Your task to perform on an android device: Open a new incognito tab in Chrome Image 0: 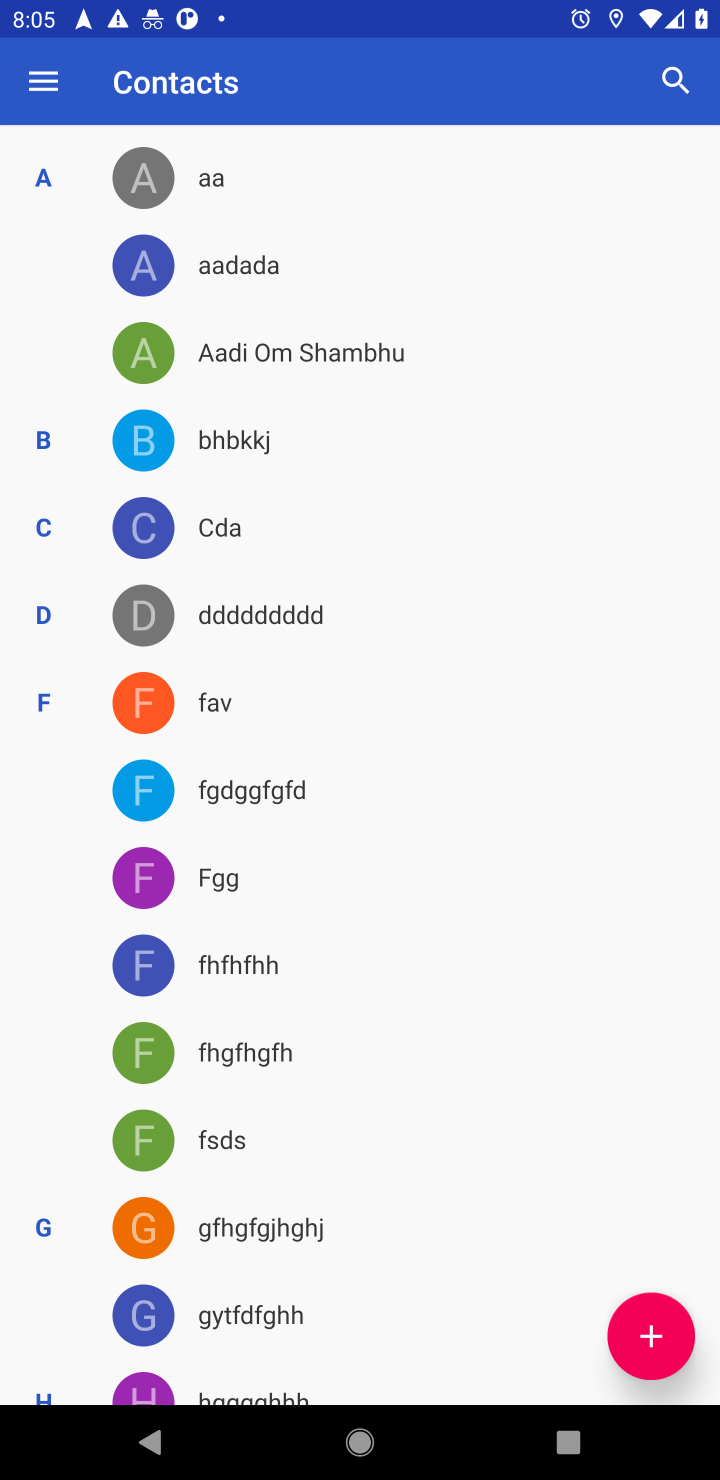
Step 0: press home button
Your task to perform on an android device: Open a new incognito tab in Chrome Image 1: 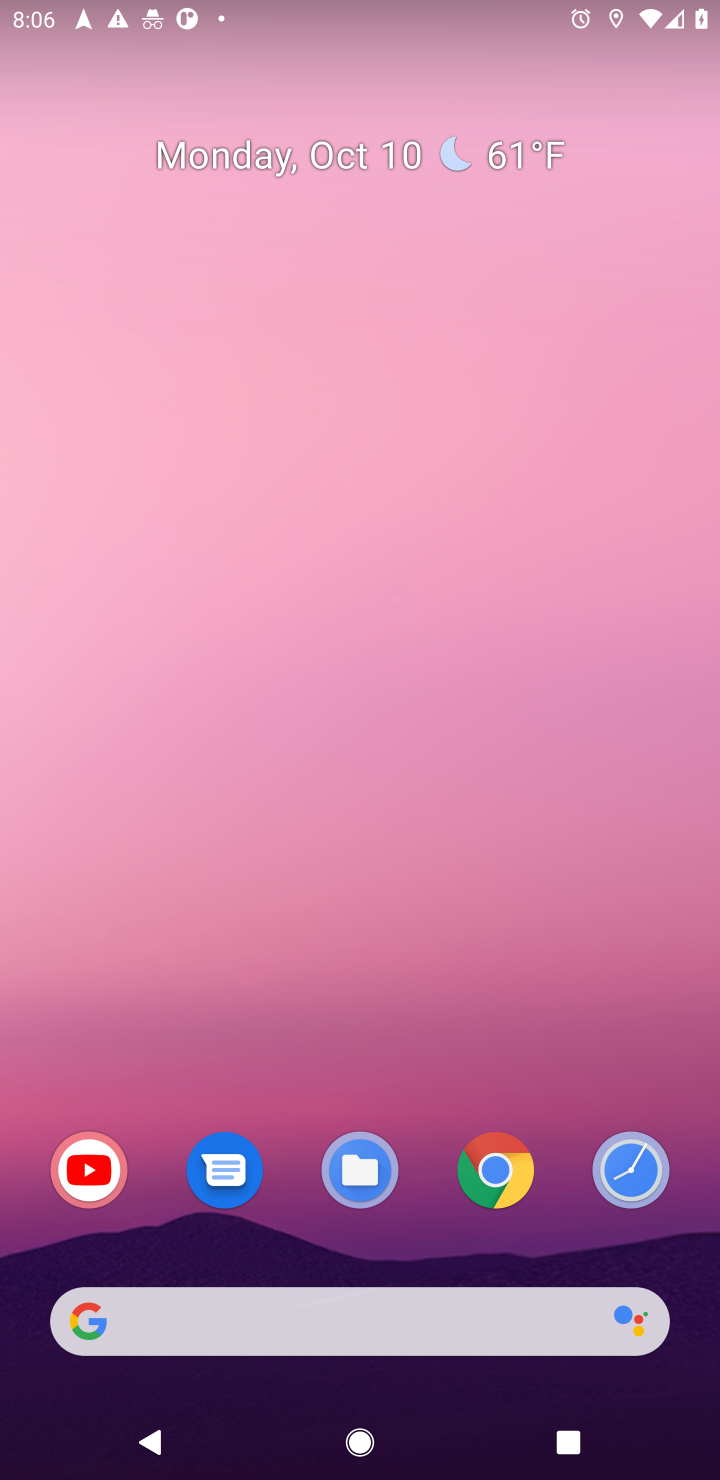
Step 1: click (484, 1174)
Your task to perform on an android device: Open a new incognito tab in Chrome Image 2: 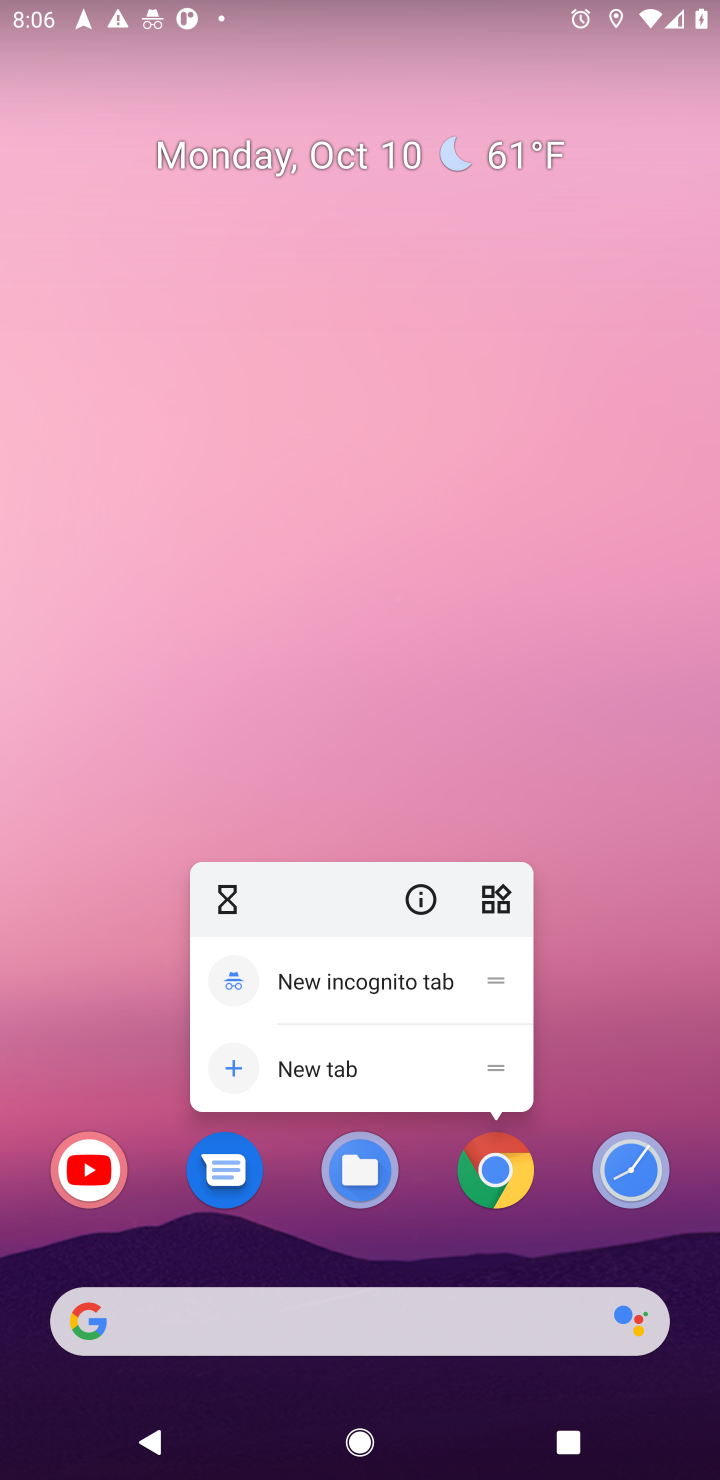
Step 2: click (526, 1170)
Your task to perform on an android device: Open a new incognito tab in Chrome Image 3: 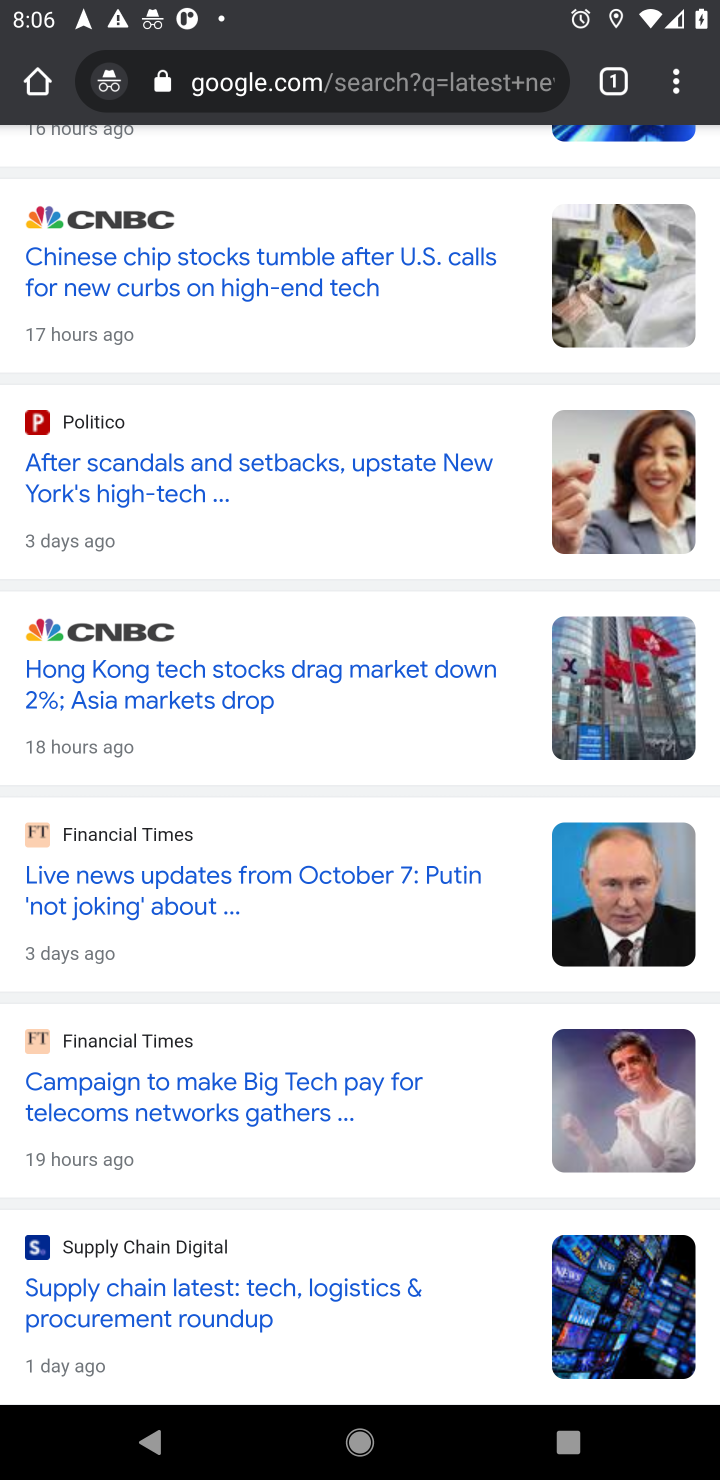
Step 3: click (674, 76)
Your task to perform on an android device: Open a new incognito tab in Chrome Image 4: 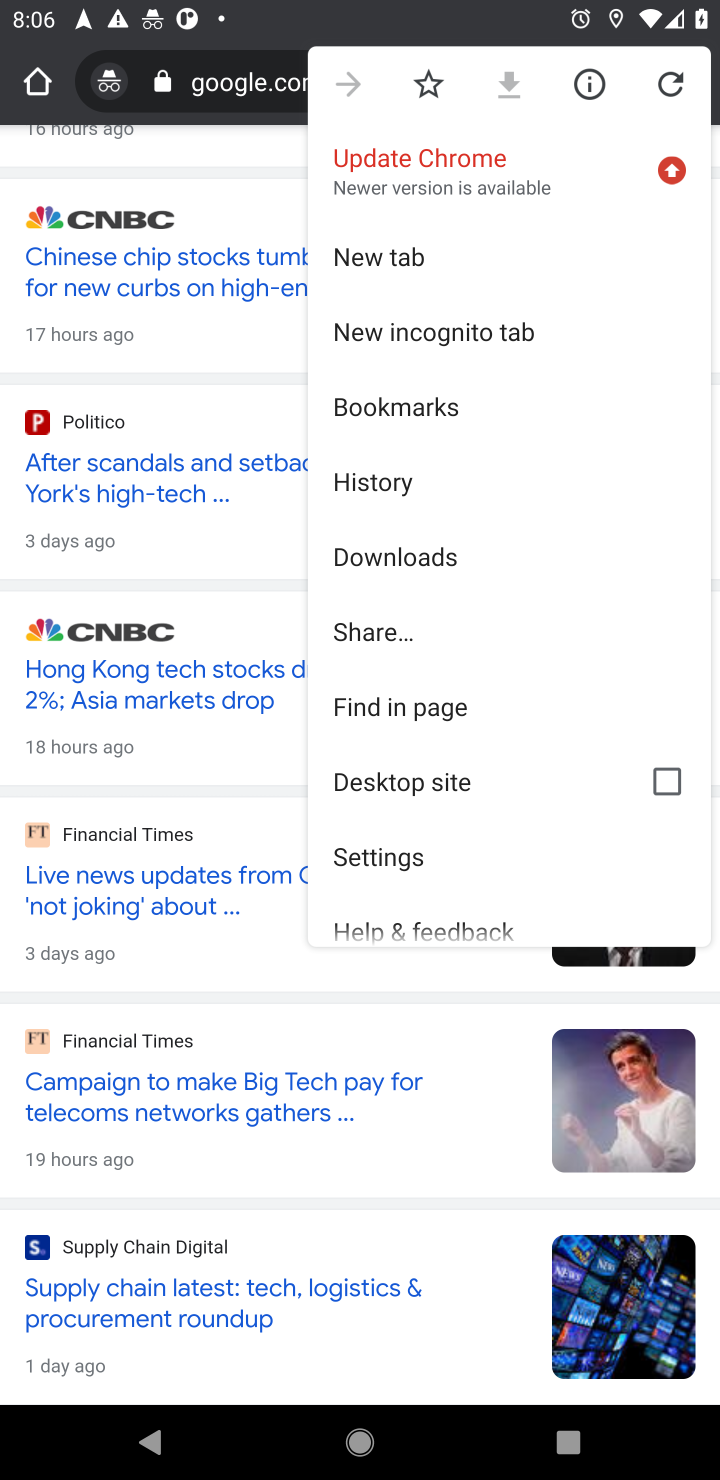
Step 4: click (423, 325)
Your task to perform on an android device: Open a new incognito tab in Chrome Image 5: 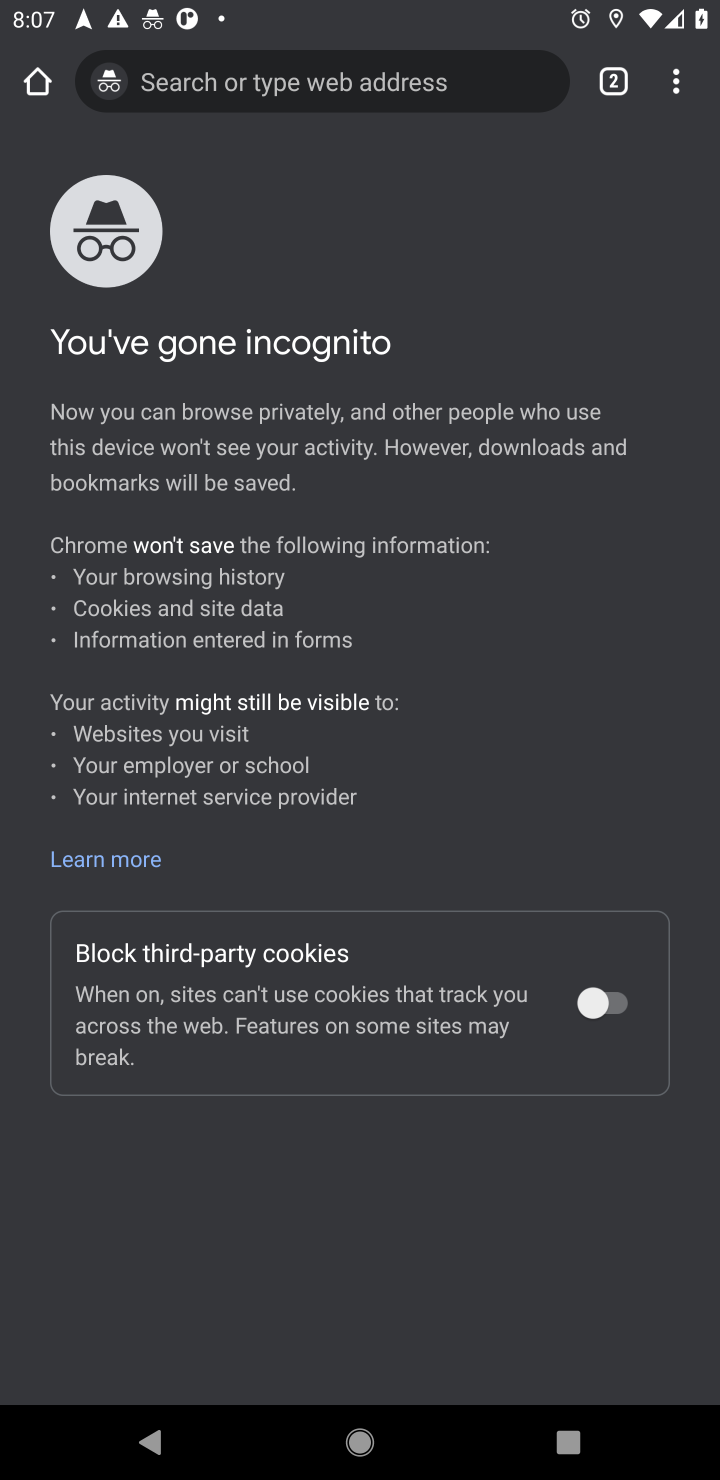
Step 5: task complete